Your task to perform on an android device: Open Google Chrome and click the shortcut for Amazon.com Image 0: 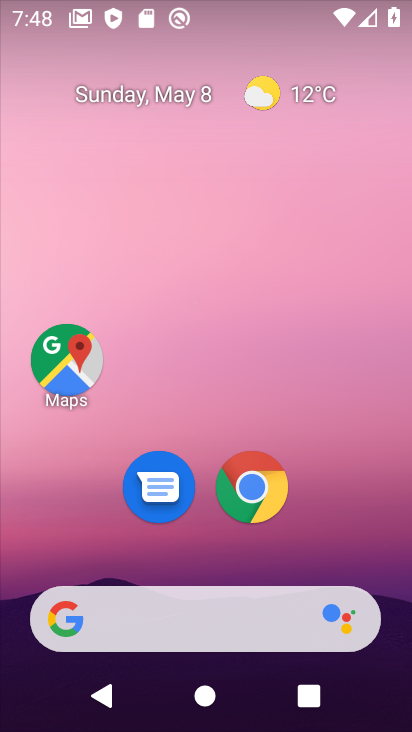
Step 0: click (245, 486)
Your task to perform on an android device: Open Google Chrome and click the shortcut for Amazon.com Image 1: 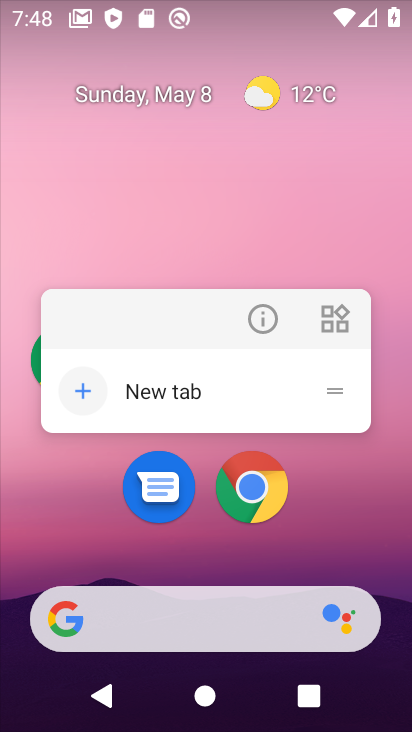
Step 1: click (275, 476)
Your task to perform on an android device: Open Google Chrome and click the shortcut for Amazon.com Image 2: 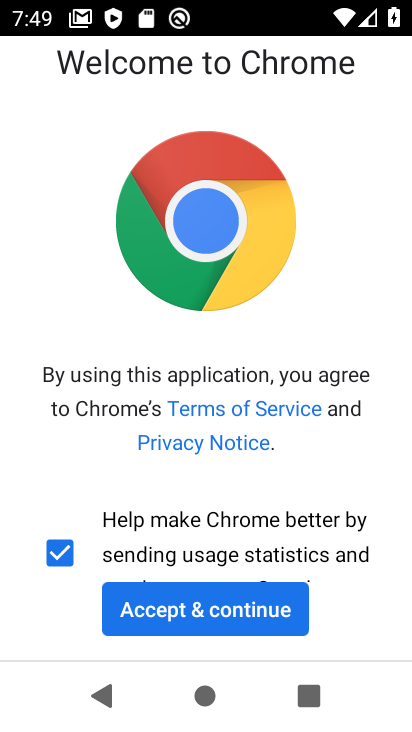
Step 2: click (257, 598)
Your task to perform on an android device: Open Google Chrome and click the shortcut for Amazon.com Image 3: 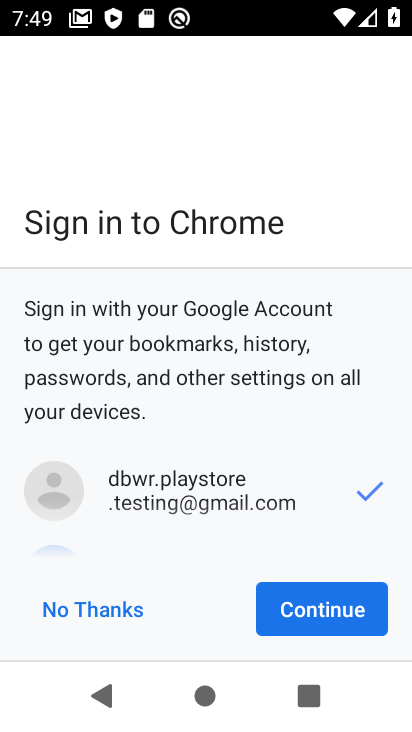
Step 3: click (283, 602)
Your task to perform on an android device: Open Google Chrome and click the shortcut for Amazon.com Image 4: 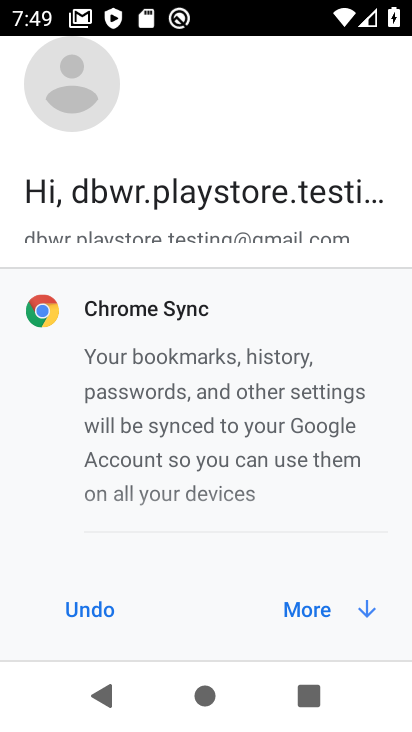
Step 4: click (312, 601)
Your task to perform on an android device: Open Google Chrome and click the shortcut for Amazon.com Image 5: 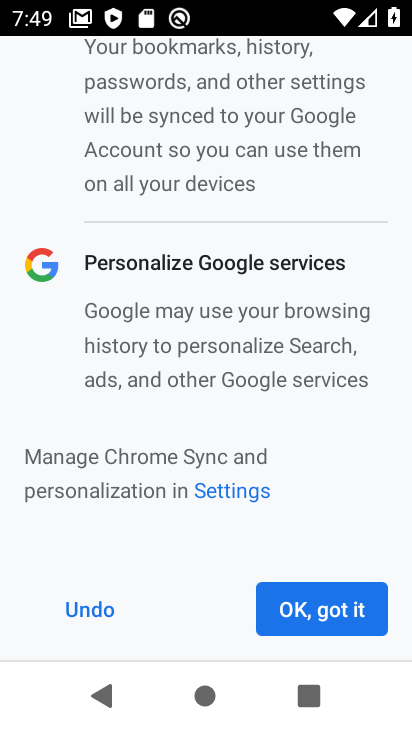
Step 5: click (312, 601)
Your task to perform on an android device: Open Google Chrome and click the shortcut for Amazon.com Image 6: 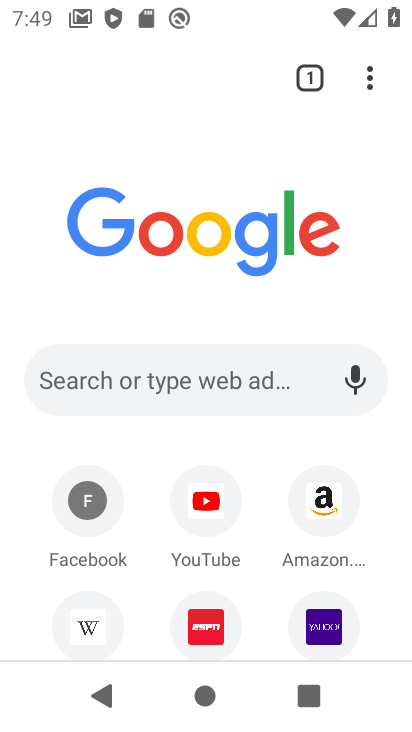
Step 6: click (367, 74)
Your task to perform on an android device: Open Google Chrome and click the shortcut for Amazon.com Image 7: 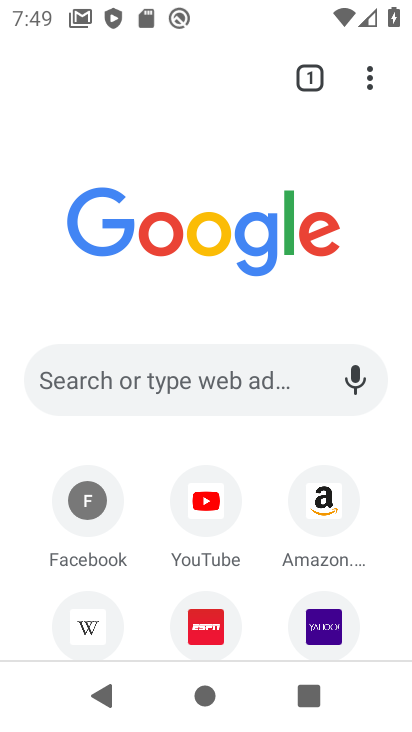
Step 7: click (329, 505)
Your task to perform on an android device: Open Google Chrome and click the shortcut for Amazon.com Image 8: 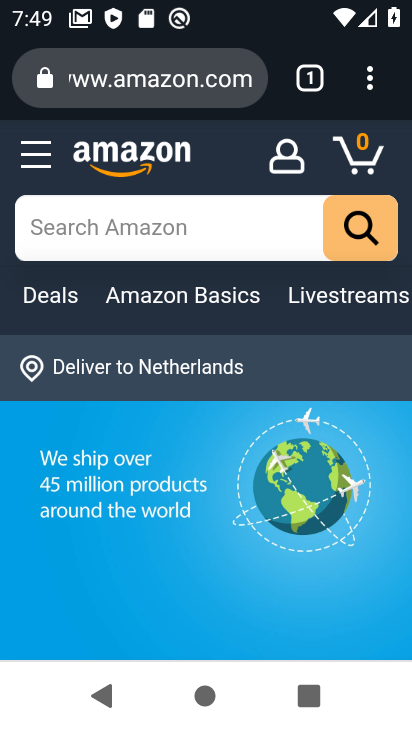
Step 8: task complete